Your task to perform on an android device: set the timer Image 0: 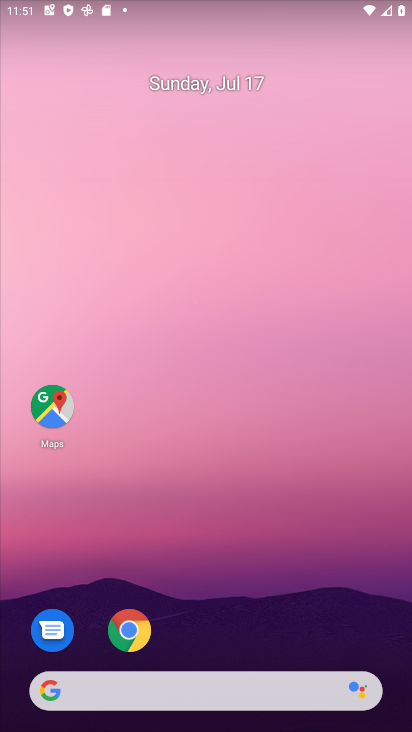
Step 0: drag from (300, 633) to (279, 74)
Your task to perform on an android device: set the timer Image 1: 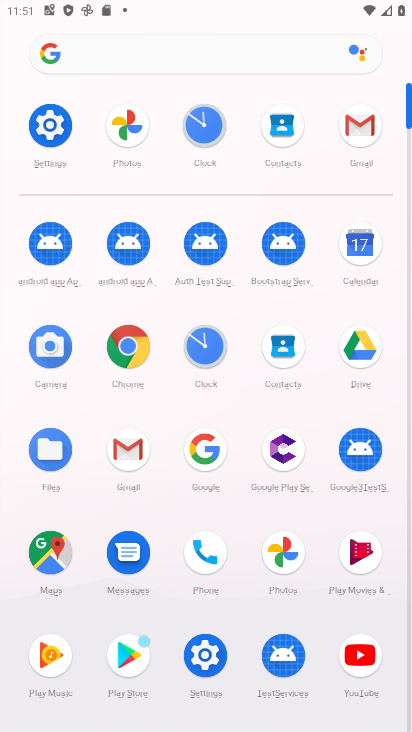
Step 1: click (215, 125)
Your task to perform on an android device: set the timer Image 2: 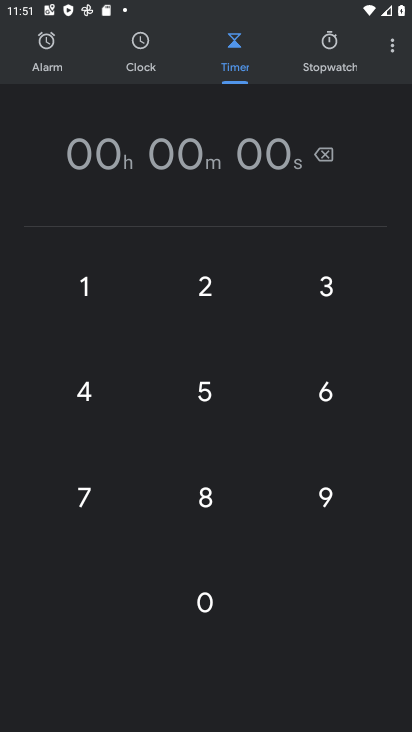
Step 2: task complete